Your task to perform on an android device: Open Youtube and go to the subscriptions tab Image 0: 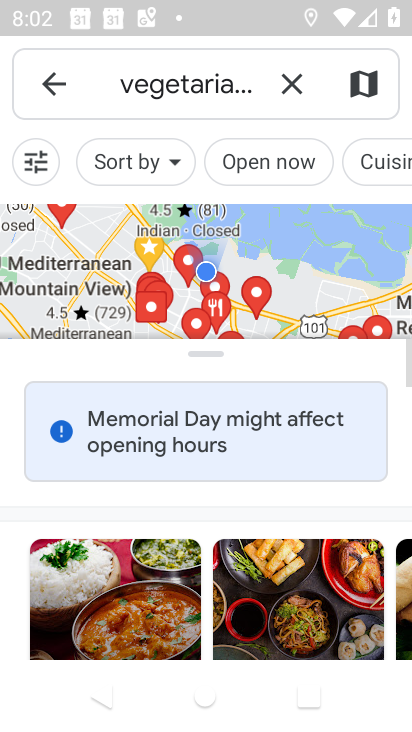
Step 0: press home button
Your task to perform on an android device: Open Youtube and go to the subscriptions tab Image 1: 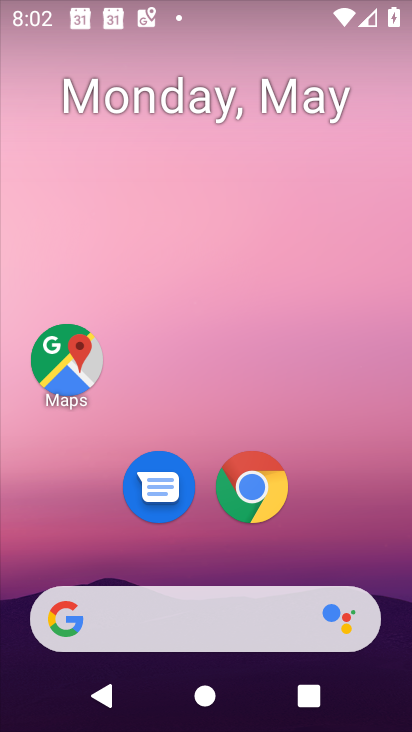
Step 1: drag from (358, 523) to (362, 86)
Your task to perform on an android device: Open Youtube and go to the subscriptions tab Image 2: 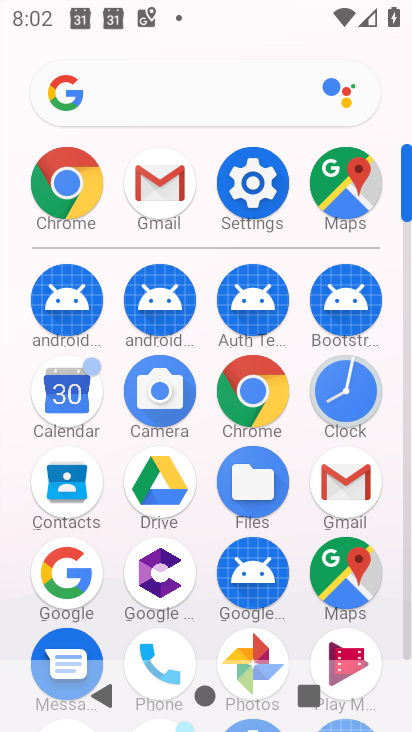
Step 2: drag from (387, 612) to (407, 467)
Your task to perform on an android device: Open Youtube and go to the subscriptions tab Image 3: 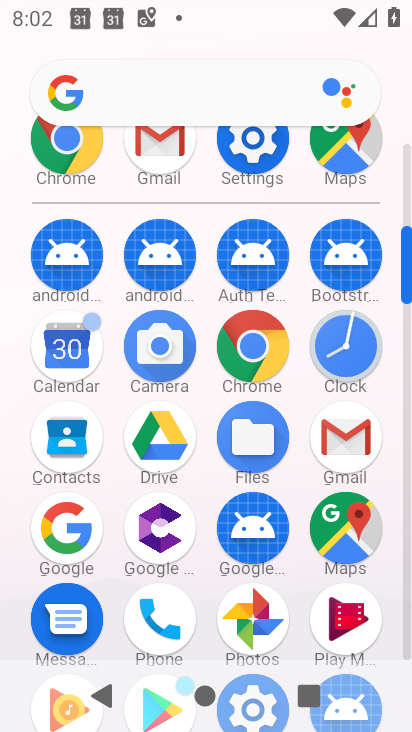
Step 3: drag from (386, 648) to (387, 406)
Your task to perform on an android device: Open Youtube and go to the subscriptions tab Image 4: 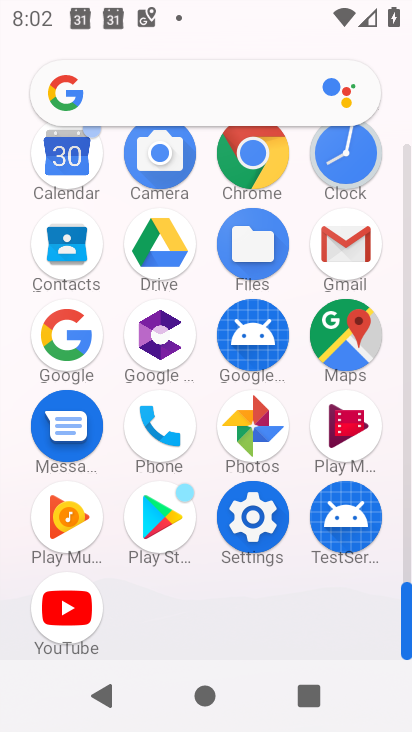
Step 4: click (66, 614)
Your task to perform on an android device: Open Youtube and go to the subscriptions tab Image 5: 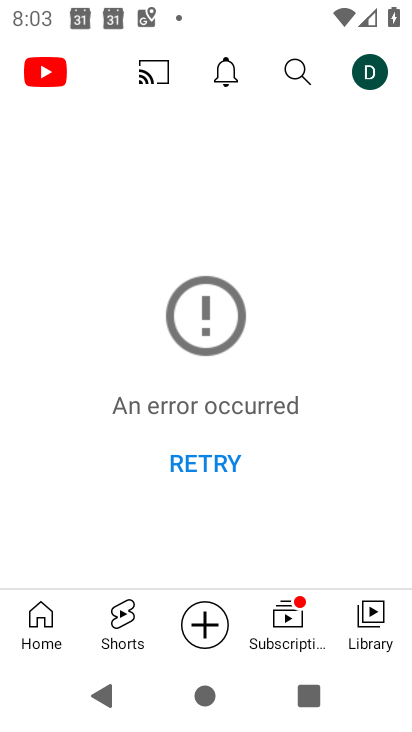
Step 5: click (292, 612)
Your task to perform on an android device: Open Youtube and go to the subscriptions tab Image 6: 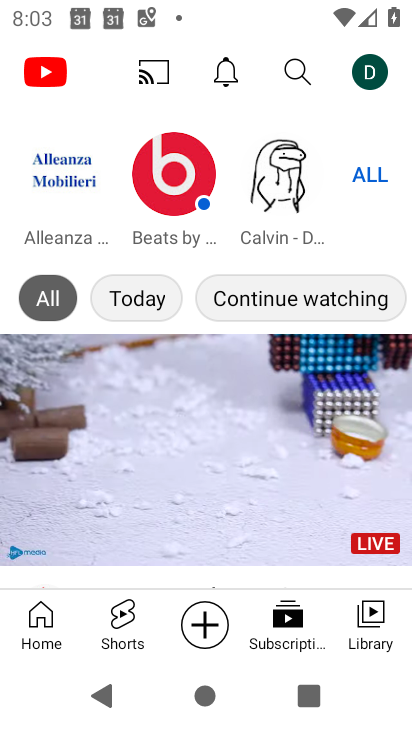
Step 6: task complete